Your task to perform on an android device: Go to Amazon Image 0: 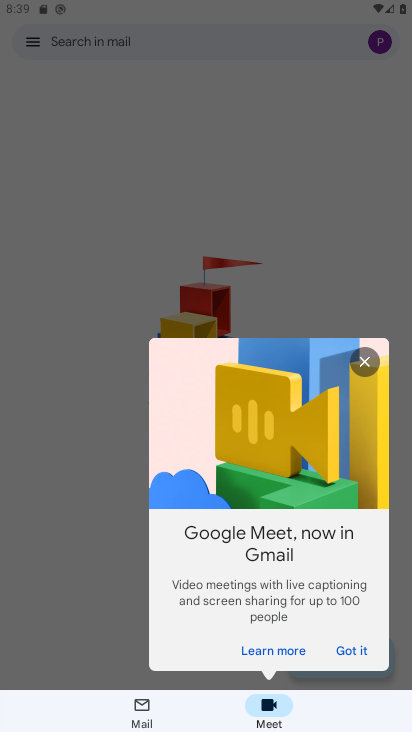
Step 0: press home button
Your task to perform on an android device: Go to Amazon Image 1: 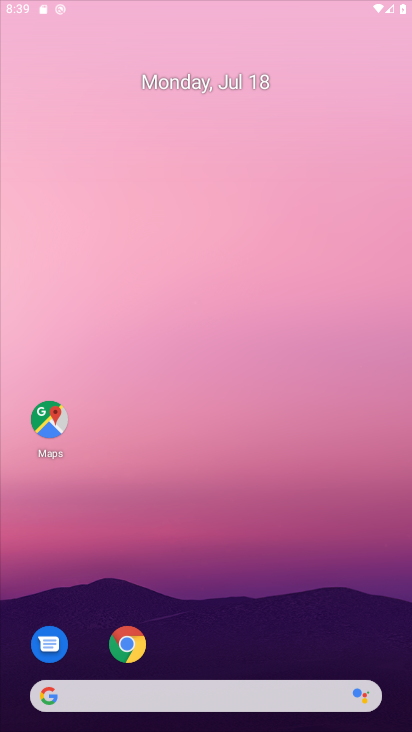
Step 1: task complete